Your task to perform on an android device: View the shopping cart on ebay.com. Add "razer blackwidow" to the cart on ebay.com, then select checkout. Image 0: 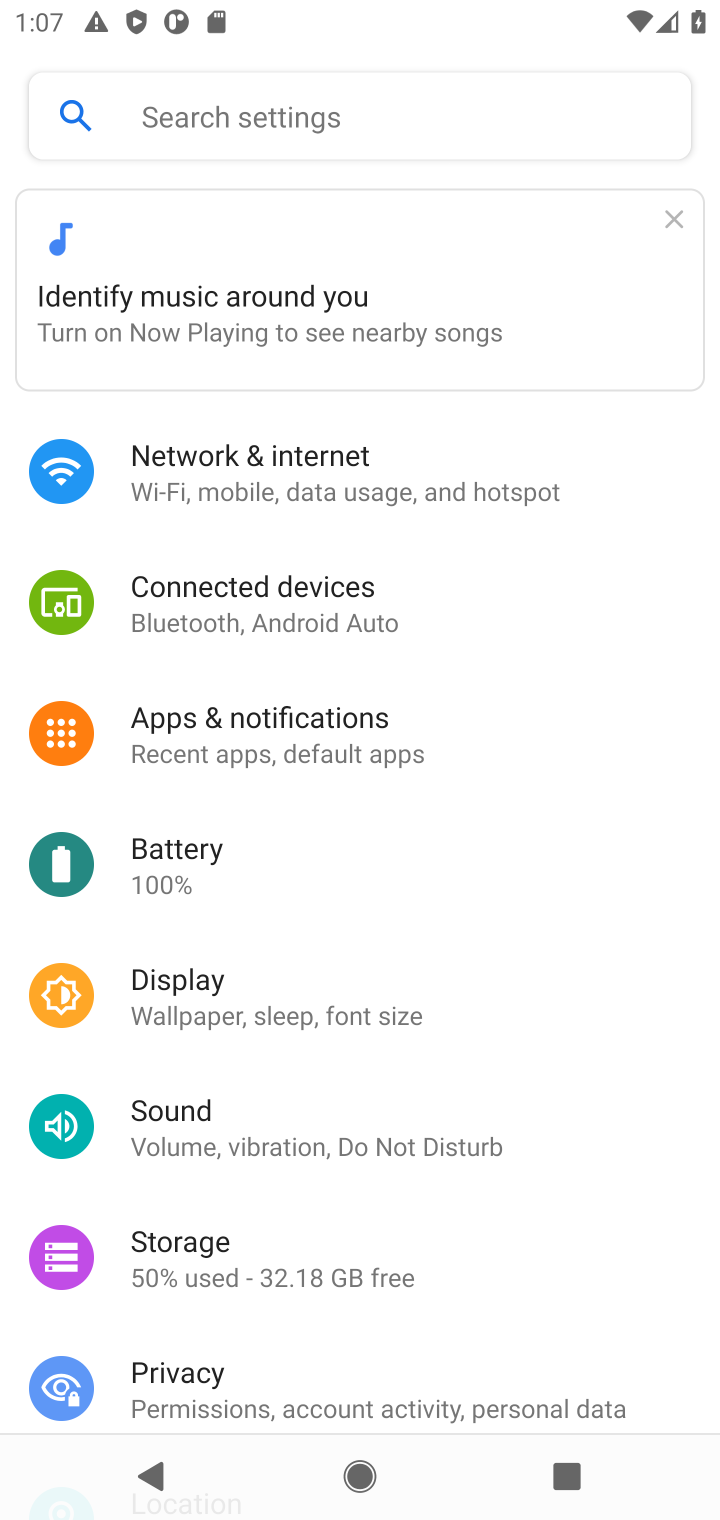
Step 0: press home button
Your task to perform on an android device: View the shopping cart on ebay.com. Add "razer blackwidow" to the cart on ebay.com, then select checkout. Image 1: 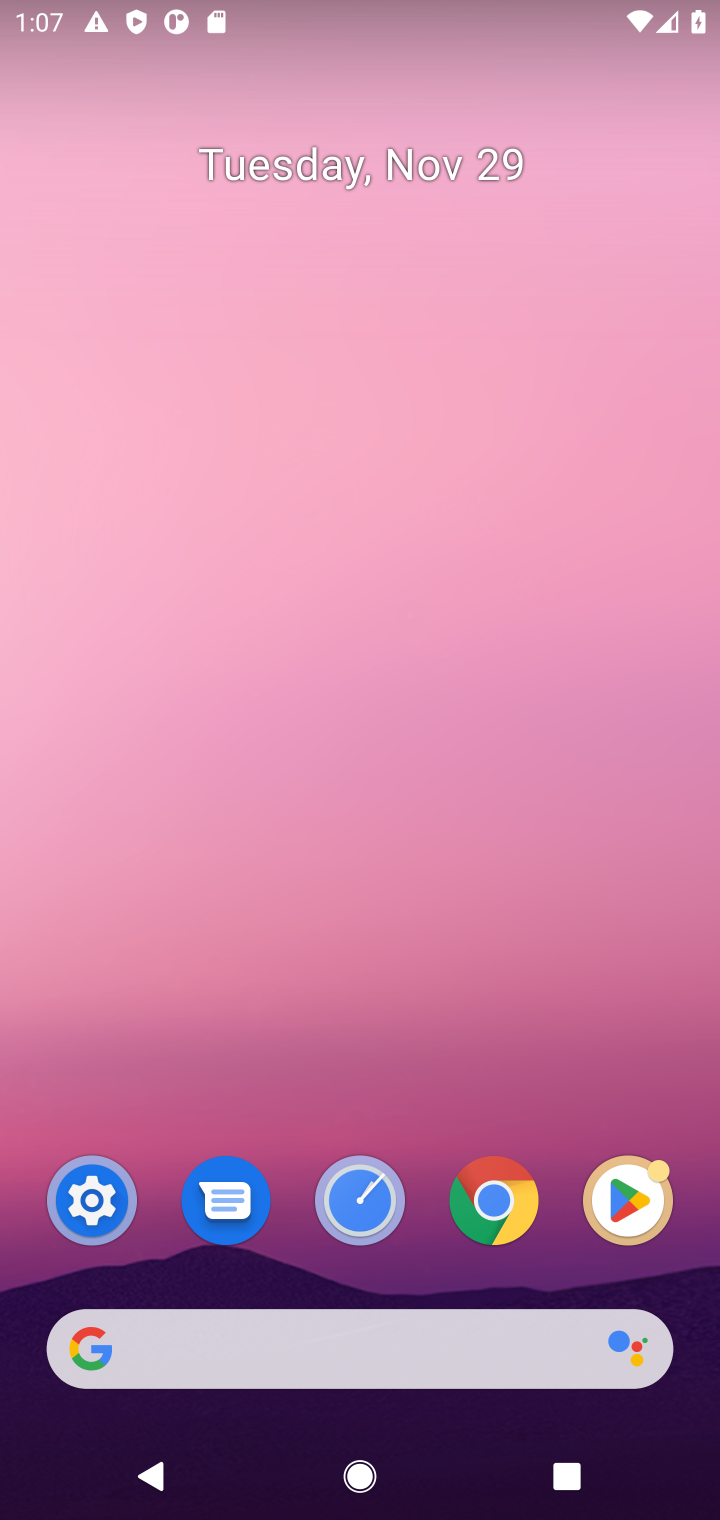
Step 1: click (240, 1334)
Your task to perform on an android device: View the shopping cart on ebay.com. Add "razer blackwidow" to the cart on ebay.com, then select checkout. Image 2: 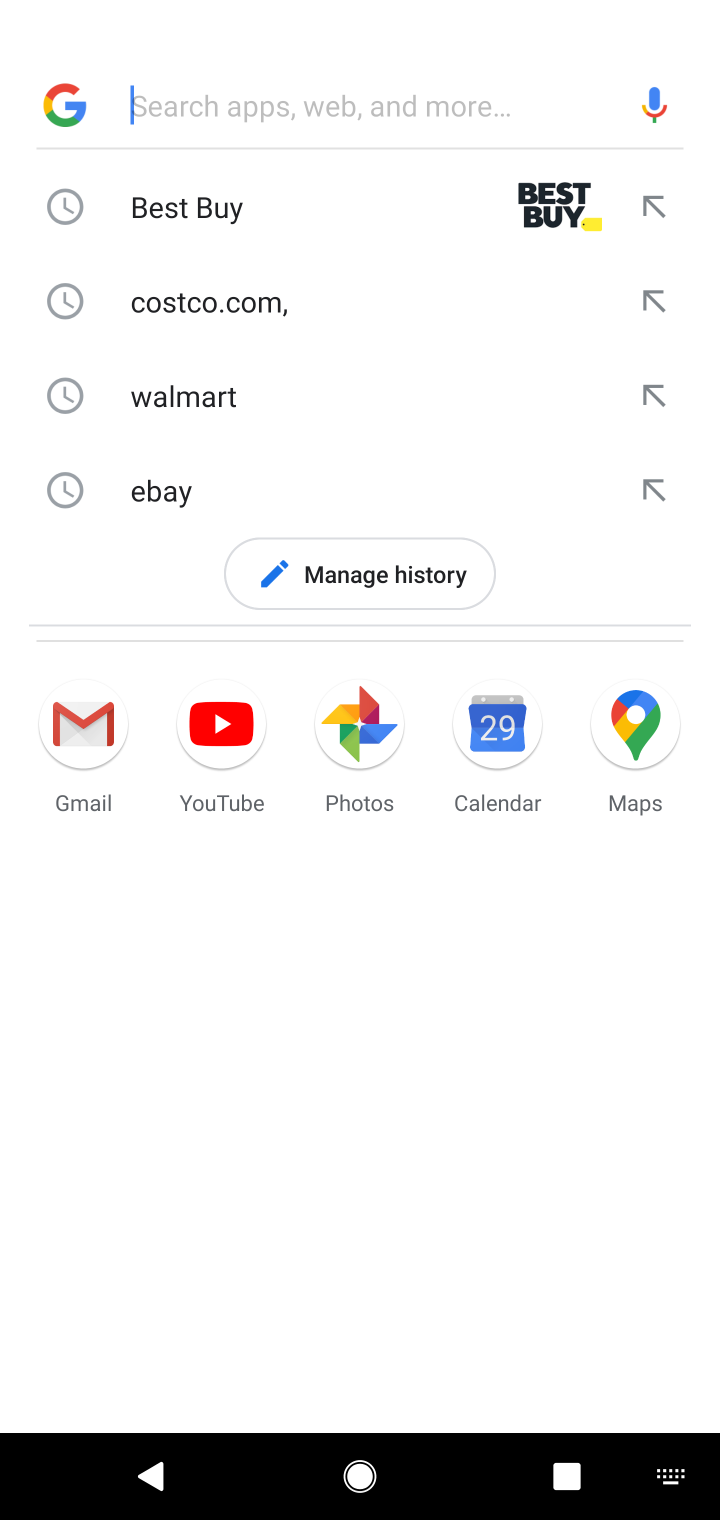
Step 2: click (356, 520)
Your task to perform on an android device: View the shopping cart on ebay.com. Add "razer blackwidow" to the cart on ebay.com, then select checkout. Image 3: 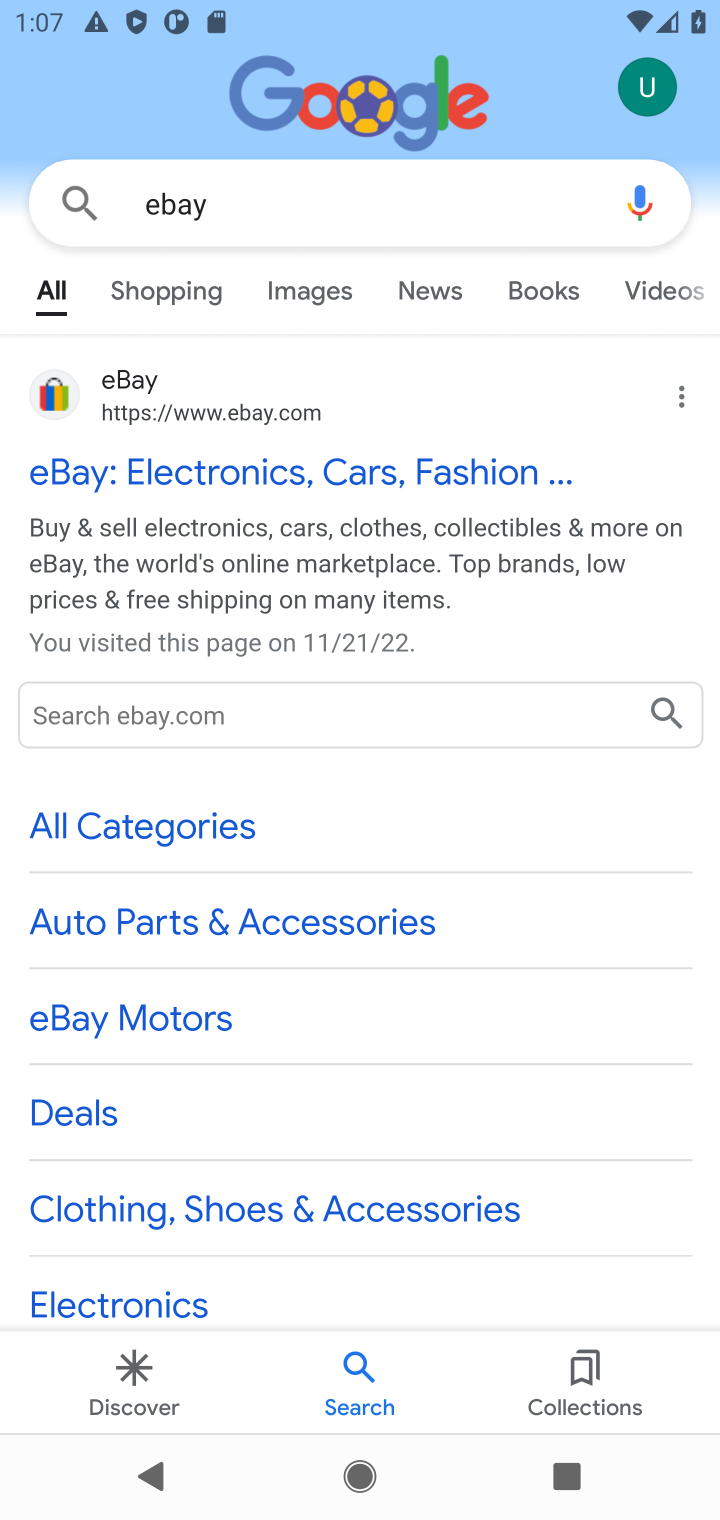
Step 3: click (260, 472)
Your task to perform on an android device: View the shopping cart on ebay.com. Add "razer blackwidow" to the cart on ebay.com, then select checkout. Image 4: 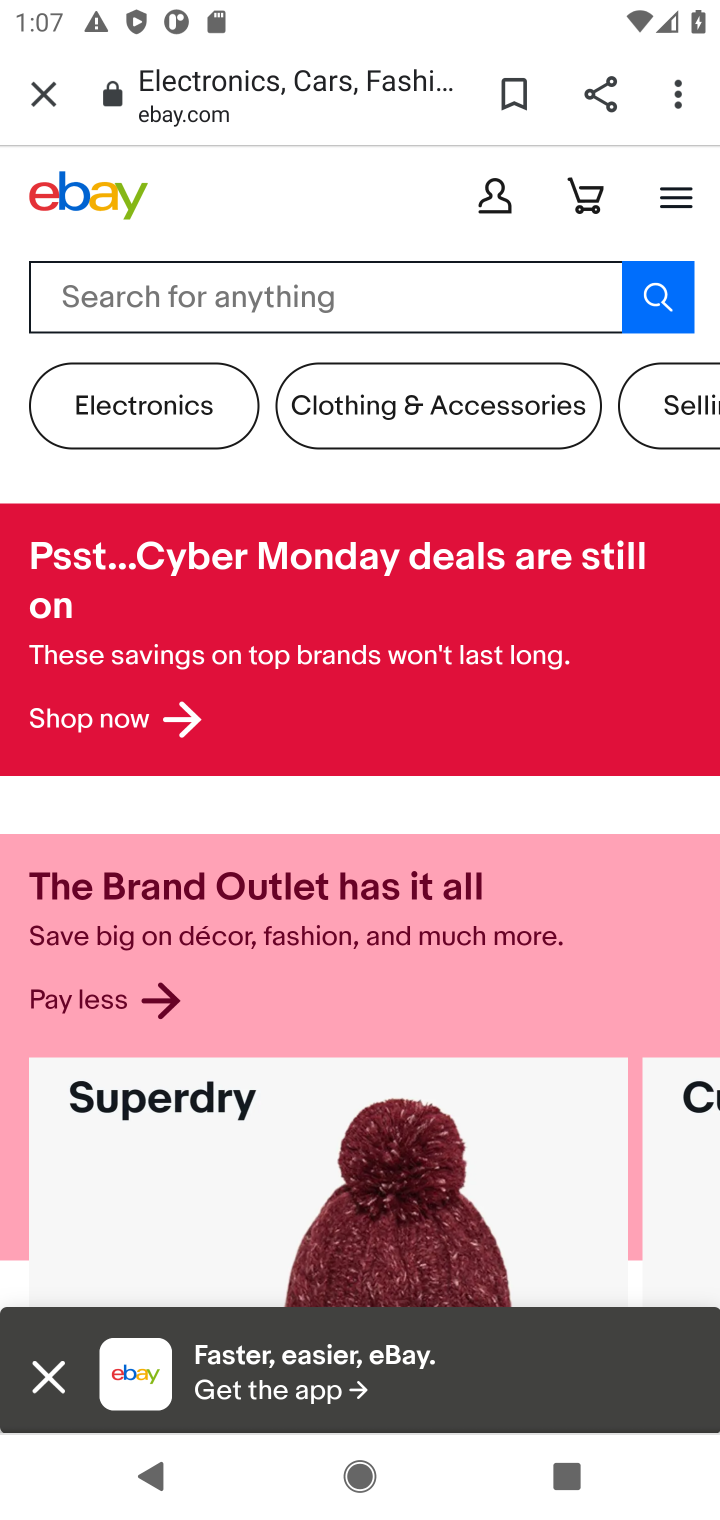
Step 4: click (267, 307)
Your task to perform on an android device: View the shopping cart on ebay.com. Add "razer blackwidow" to the cart on ebay.com, then select checkout. Image 5: 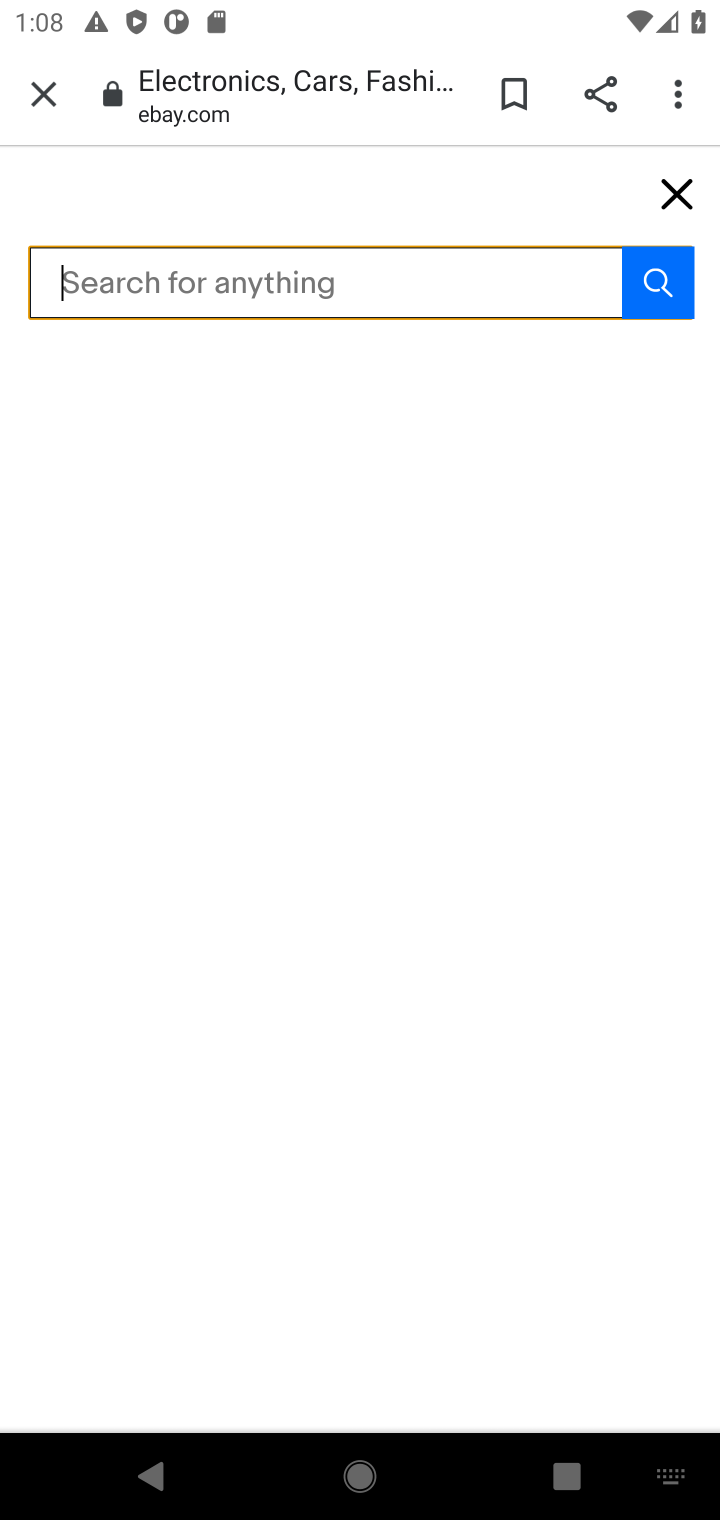
Step 5: type "razer blaclwidow"
Your task to perform on an android device: View the shopping cart on ebay.com. Add "razer blackwidow" to the cart on ebay.com, then select checkout. Image 6: 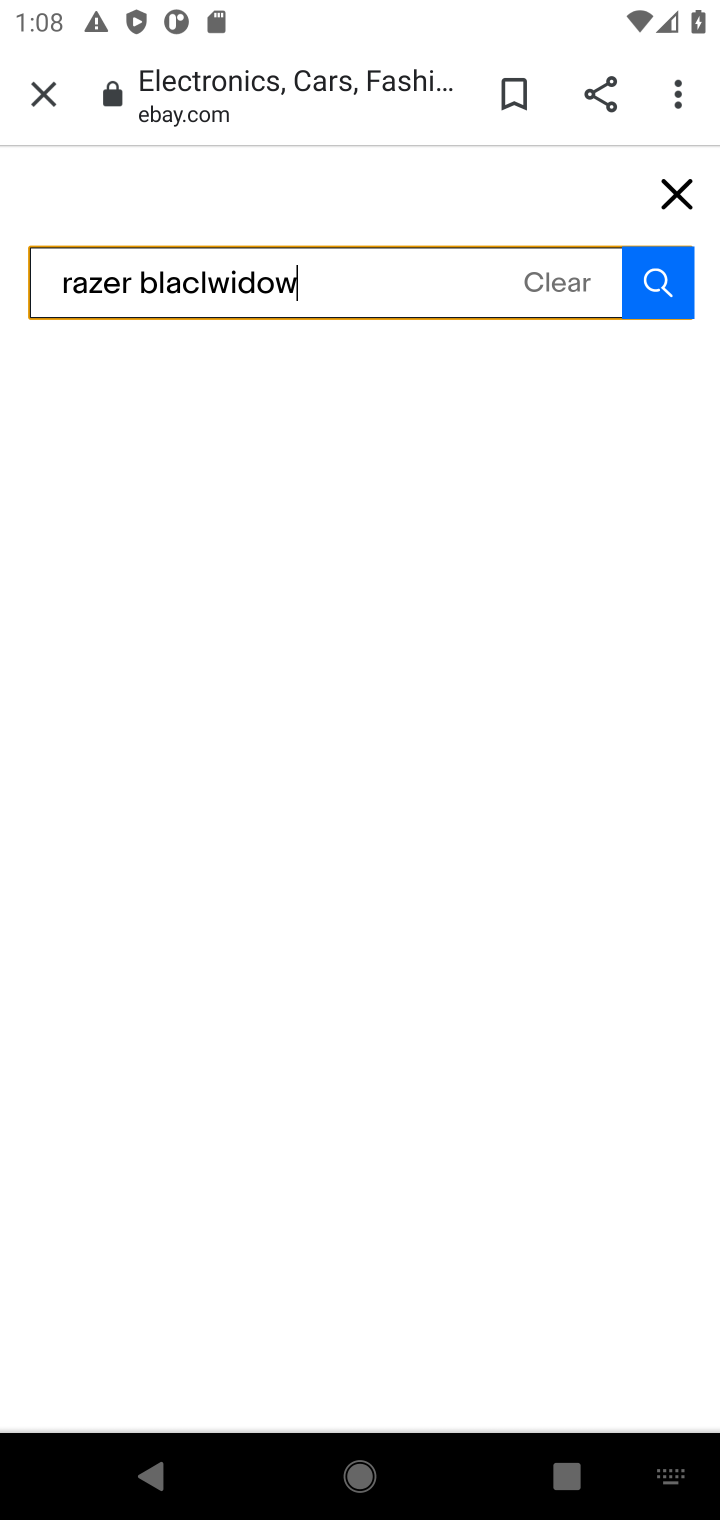
Step 6: click (671, 274)
Your task to perform on an android device: View the shopping cart on ebay.com. Add "razer blackwidow" to the cart on ebay.com, then select checkout. Image 7: 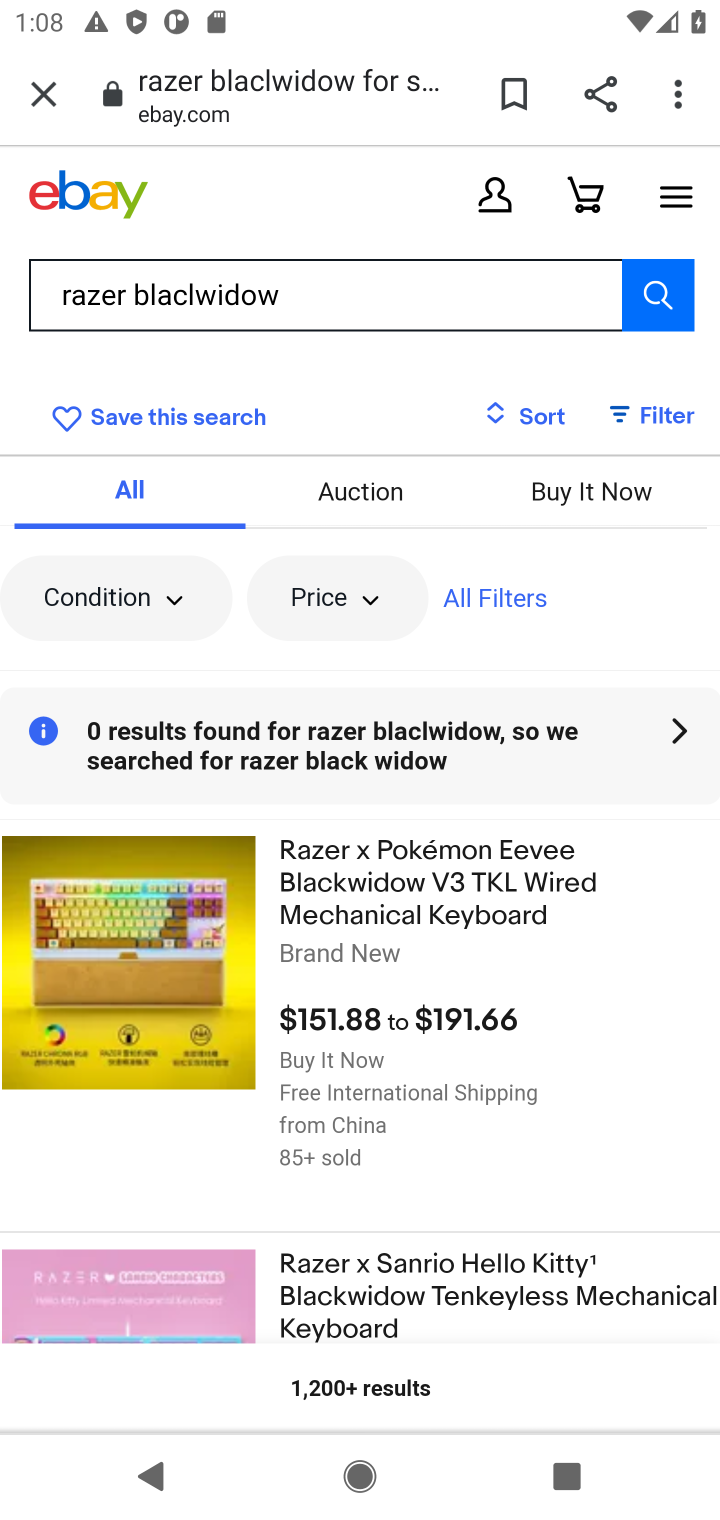
Step 7: click (454, 838)
Your task to perform on an android device: View the shopping cart on ebay.com. Add "razer blackwidow" to the cart on ebay.com, then select checkout. Image 8: 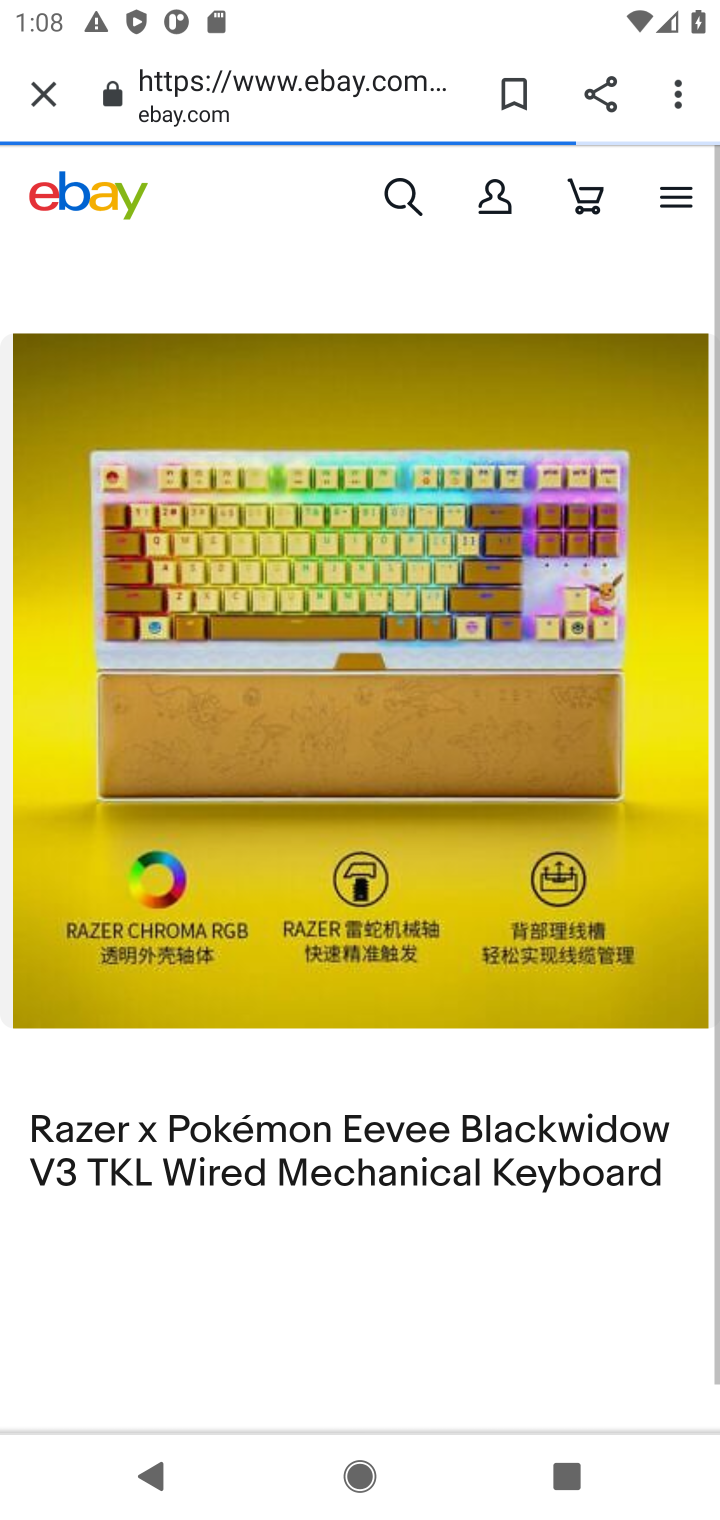
Step 8: task complete